Your task to perform on an android device: Show me popular games on the Play Store Image 0: 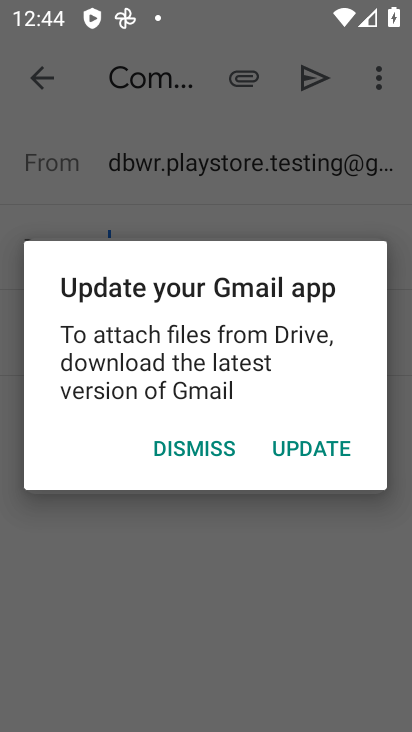
Step 0: press home button
Your task to perform on an android device: Show me popular games on the Play Store Image 1: 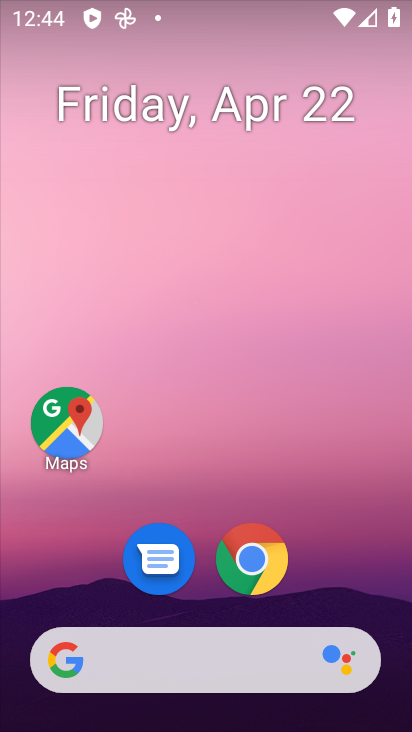
Step 1: drag from (362, 585) to (362, 153)
Your task to perform on an android device: Show me popular games on the Play Store Image 2: 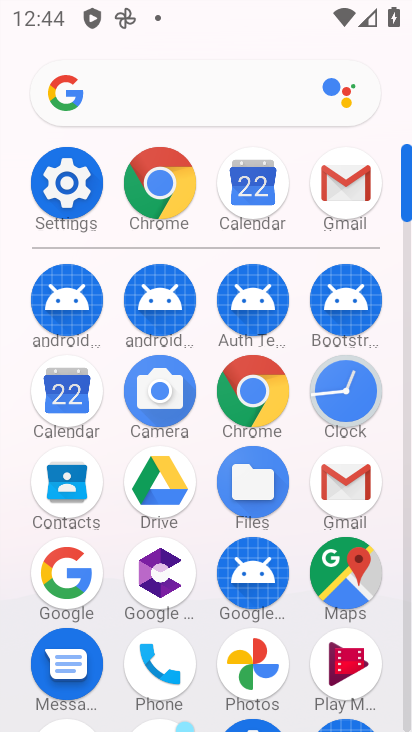
Step 2: drag from (401, 623) to (396, 386)
Your task to perform on an android device: Show me popular games on the Play Store Image 3: 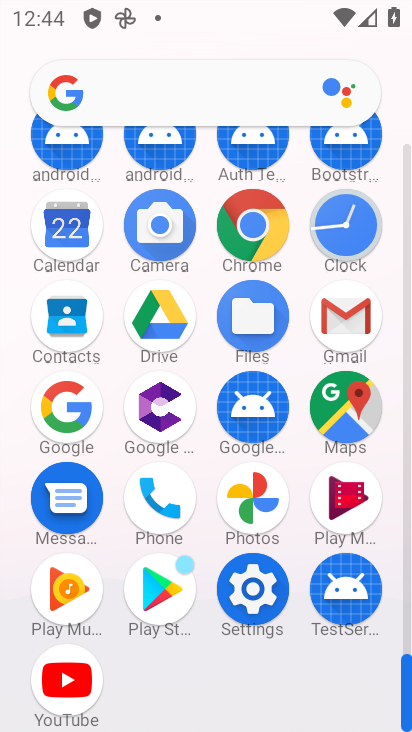
Step 3: click (167, 594)
Your task to perform on an android device: Show me popular games on the Play Store Image 4: 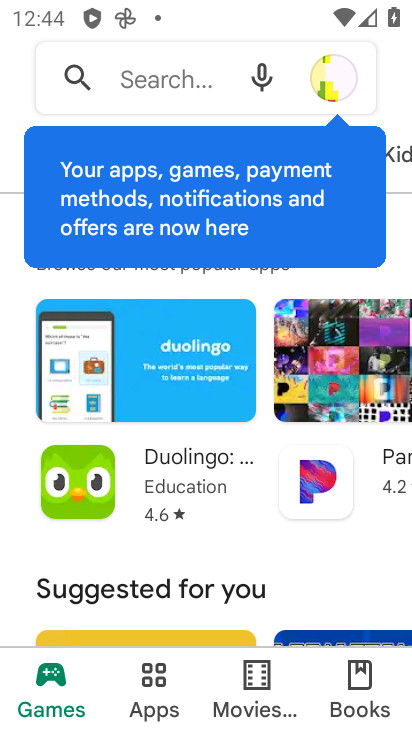
Step 4: task complete